Your task to perform on an android device: toggle airplane mode Image 0: 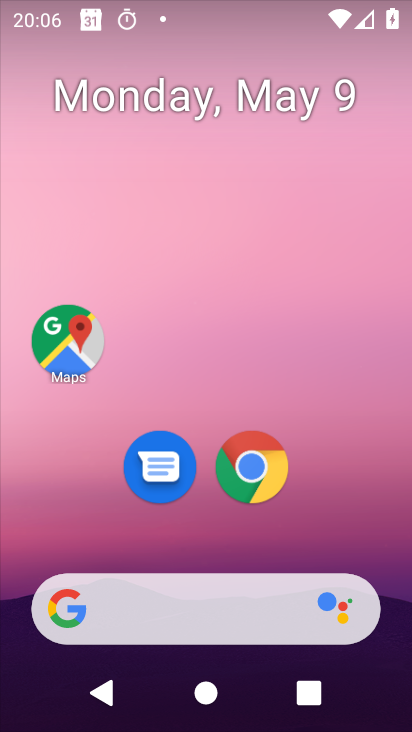
Step 0: drag from (253, 9) to (155, 509)
Your task to perform on an android device: toggle airplane mode Image 1: 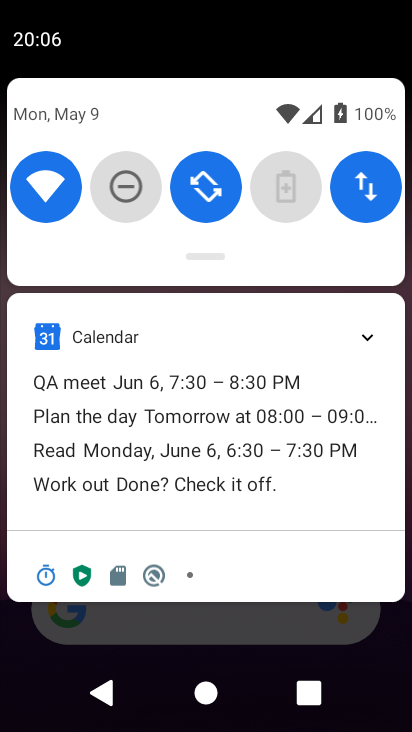
Step 1: drag from (252, 236) to (213, 539)
Your task to perform on an android device: toggle airplane mode Image 2: 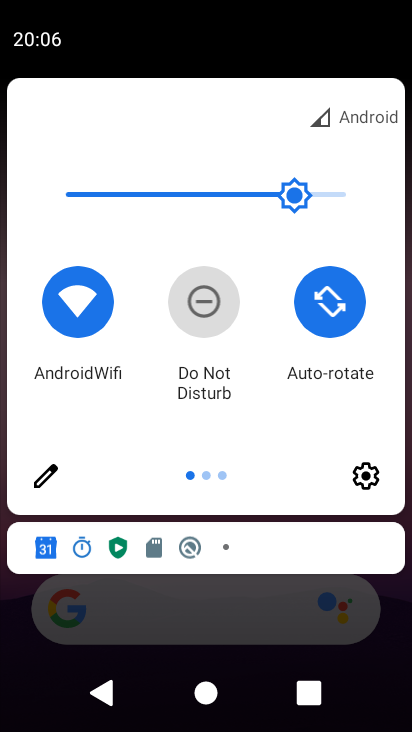
Step 2: drag from (323, 379) to (0, 351)
Your task to perform on an android device: toggle airplane mode Image 3: 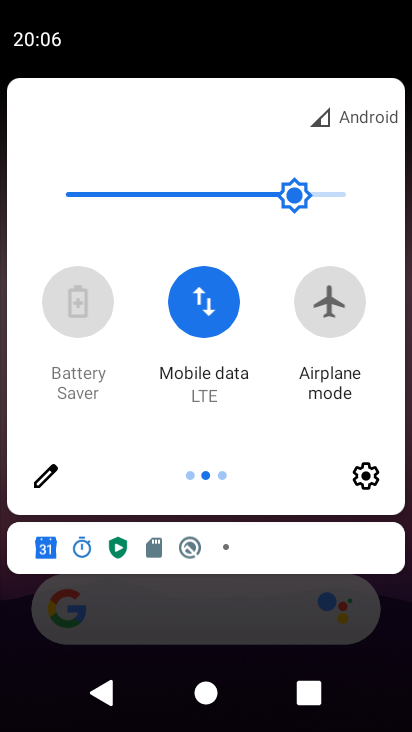
Step 3: click (323, 308)
Your task to perform on an android device: toggle airplane mode Image 4: 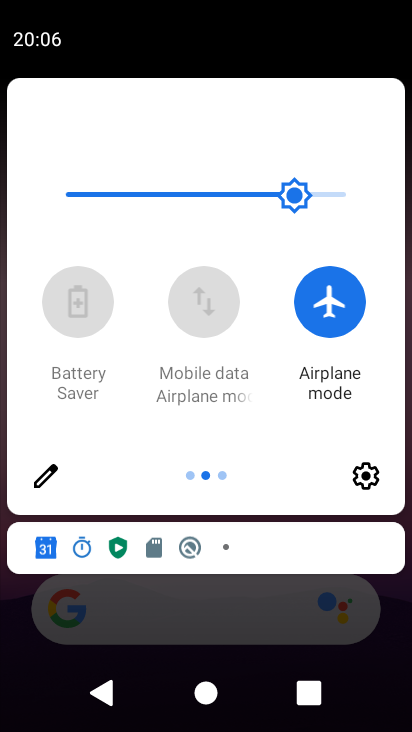
Step 4: task complete